Your task to perform on an android device: open wifi settings Image 0: 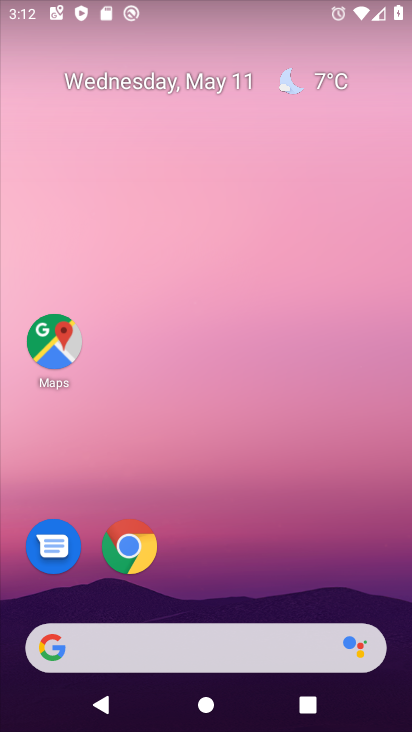
Step 0: drag from (228, 614) to (169, 89)
Your task to perform on an android device: open wifi settings Image 1: 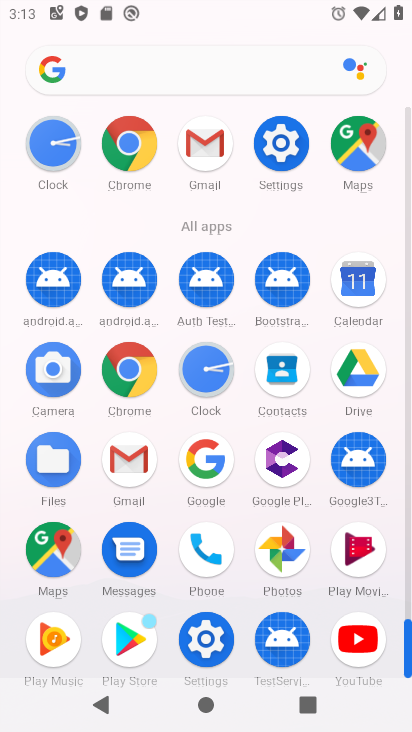
Step 1: click (281, 149)
Your task to perform on an android device: open wifi settings Image 2: 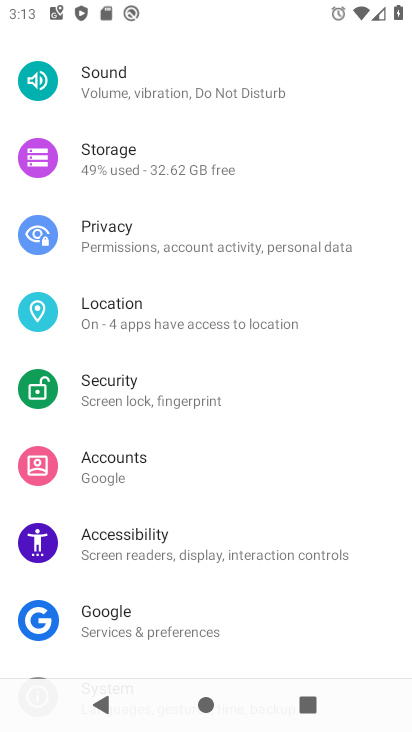
Step 2: click (214, 154)
Your task to perform on an android device: open wifi settings Image 3: 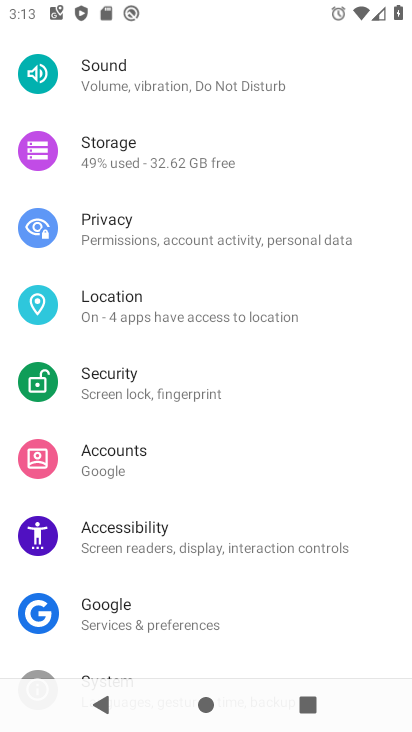
Step 3: click (217, 180)
Your task to perform on an android device: open wifi settings Image 4: 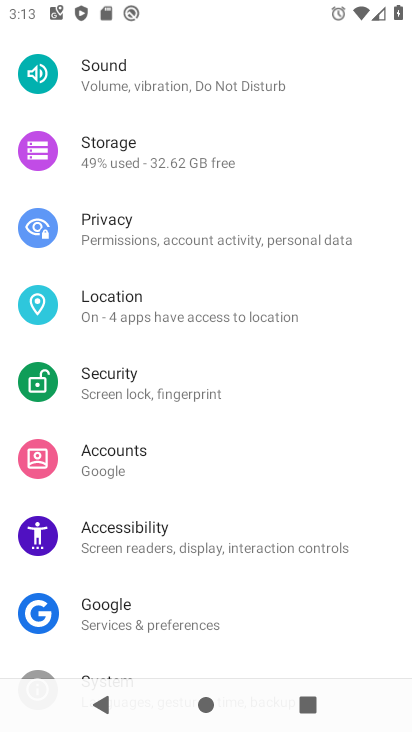
Step 4: drag from (217, 180) to (301, 575)
Your task to perform on an android device: open wifi settings Image 5: 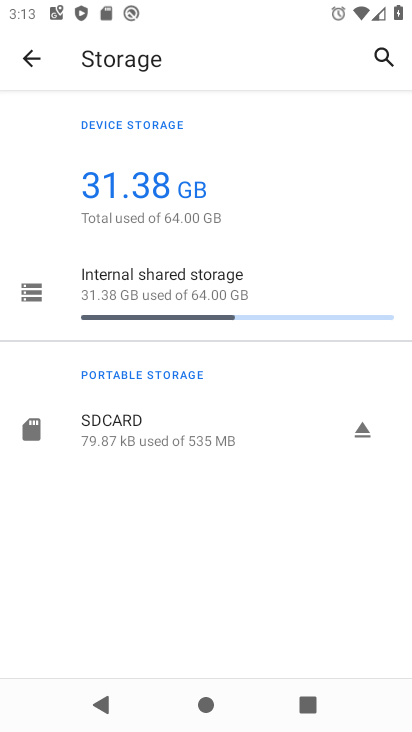
Step 5: press back button
Your task to perform on an android device: open wifi settings Image 6: 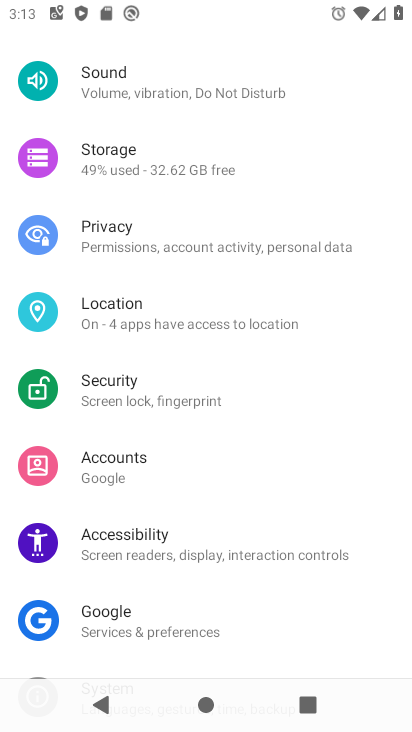
Step 6: drag from (171, 83) to (270, 347)
Your task to perform on an android device: open wifi settings Image 7: 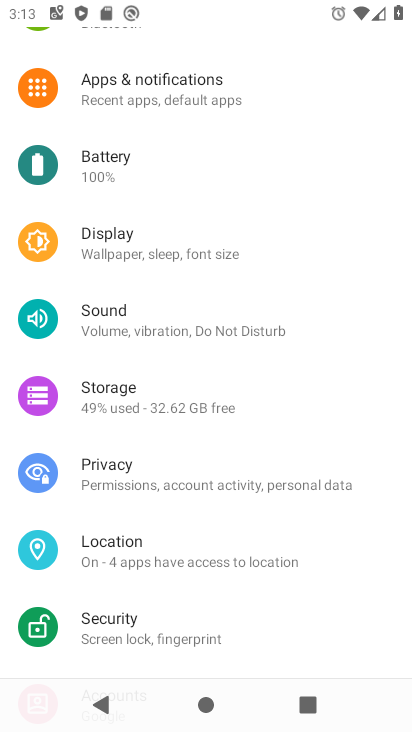
Step 7: drag from (208, 150) to (366, 712)
Your task to perform on an android device: open wifi settings Image 8: 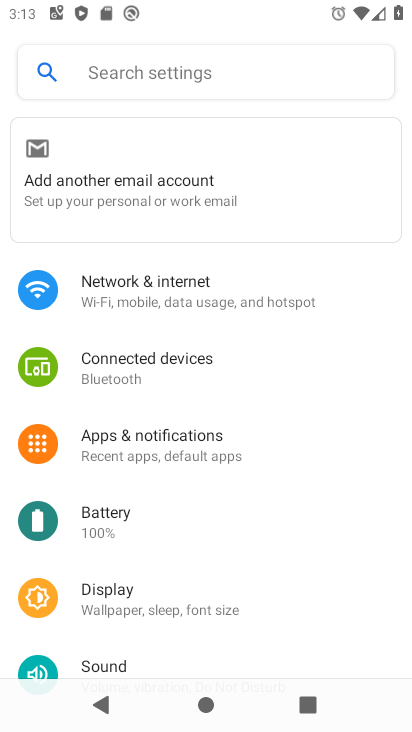
Step 8: click (186, 288)
Your task to perform on an android device: open wifi settings Image 9: 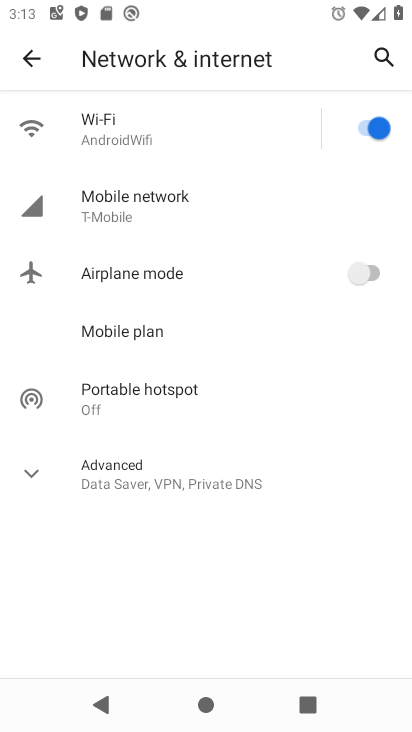
Step 9: click (189, 126)
Your task to perform on an android device: open wifi settings Image 10: 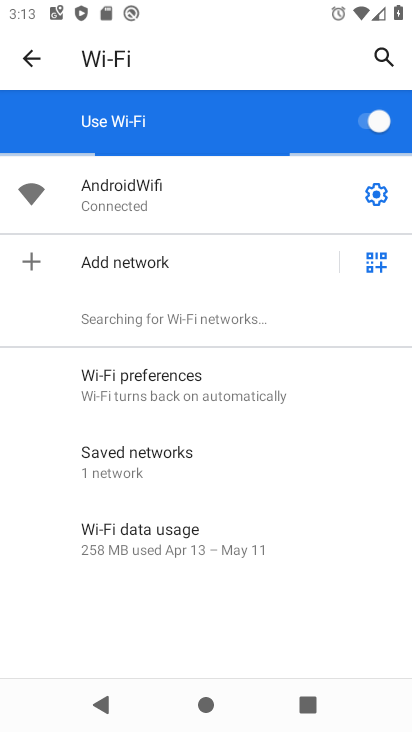
Step 10: task complete